Your task to perform on an android device: Go to calendar. Show me events next week Image 0: 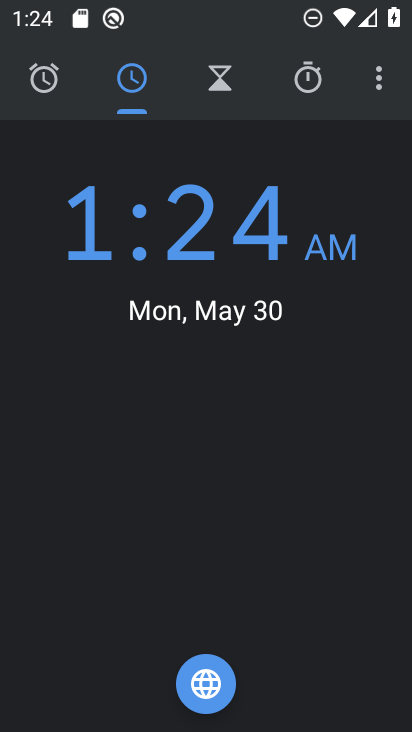
Step 0: press home button
Your task to perform on an android device: Go to calendar. Show me events next week Image 1: 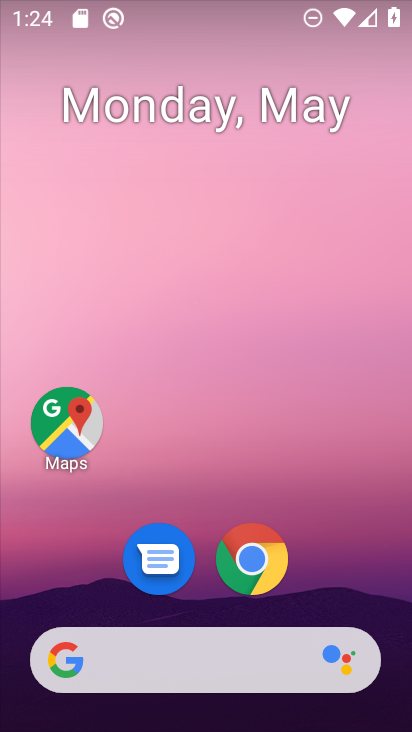
Step 1: drag from (347, 587) to (352, 43)
Your task to perform on an android device: Go to calendar. Show me events next week Image 2: 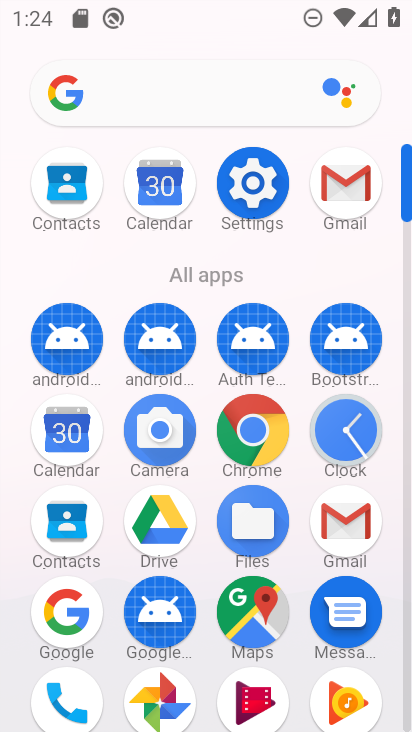
Step 2: click (68, 427)
Your task to perform on an android device: Go to calendar. Show me events next week Image 3: 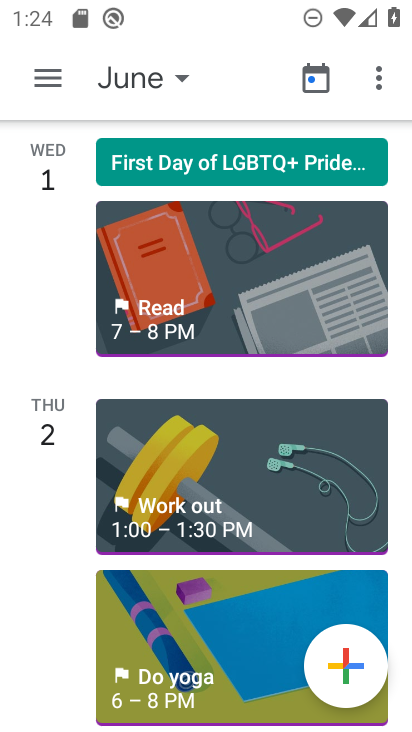
Step 3: click (130, 91)
Your task to perform on an android device: Go to calendar. Show me events next week Image 4: 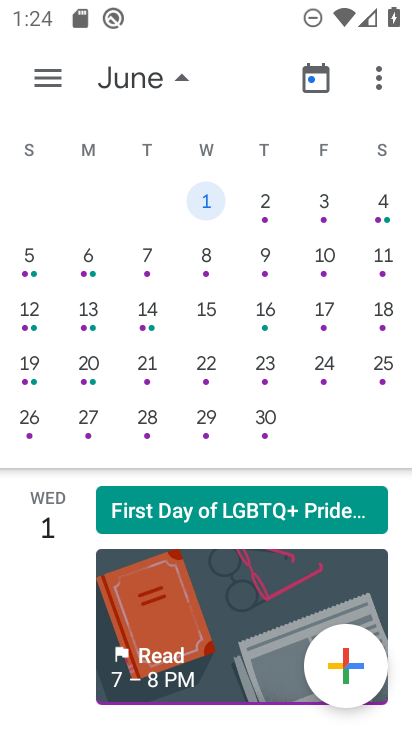
Step 4: drag from (97, 389) to (357, 333)
Your task to perform on an android device: Go to calendar. Show me events next week Image 5: 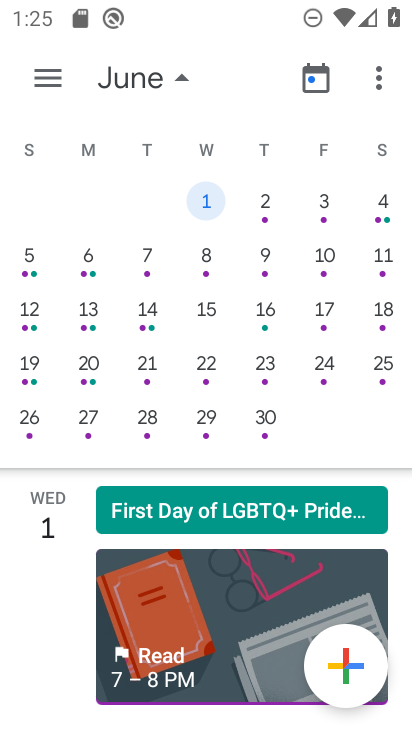
Step 5: drag from (80, 418) to (396, 451)
Your task to perform on an android device: Go to calendar. Show me events next week Image 6: 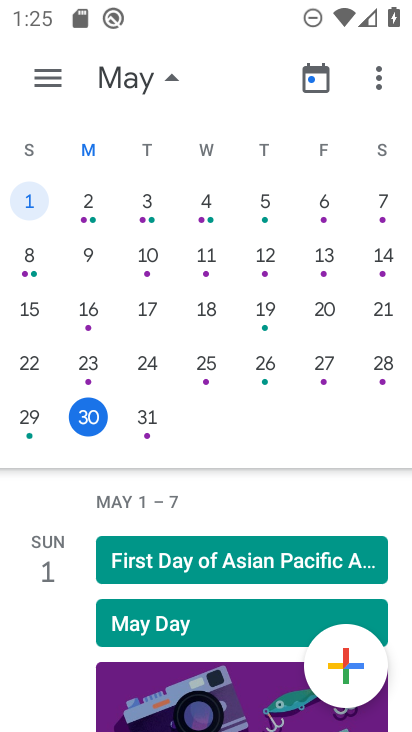
Step 6: click (82, 411)
Your task to perform on an android device: Go to calendar. Show me events next week Image 7: 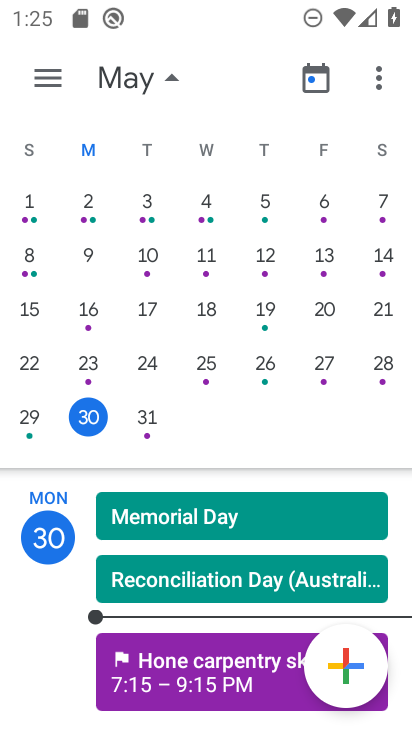
Step 7: task complete